Your task to perform on an android device: Open privacy settings Image 0: 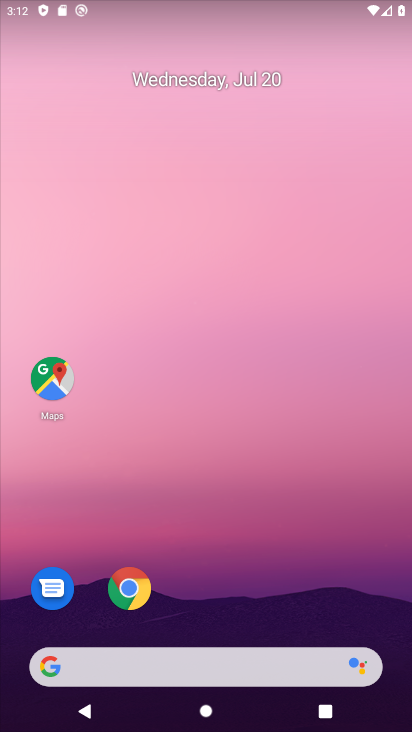
Step 0: drag from (288, 632) to (247, 140)
Your task to perform on an android device: Open privacy settings Image 1: 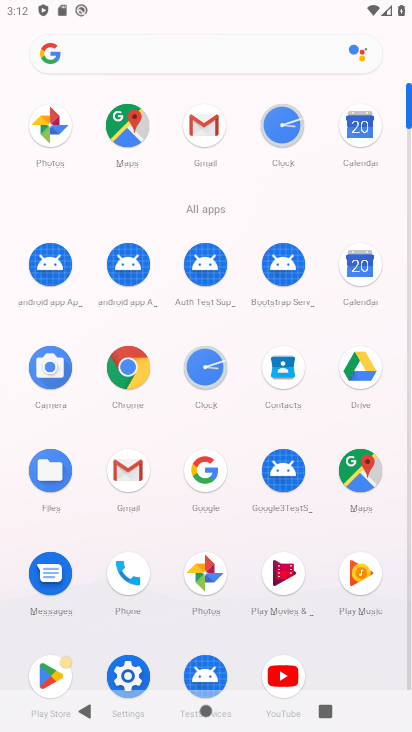
Step 1: click (125, 671)
Your task to perform on an android device: Open privacy settings Image 2: 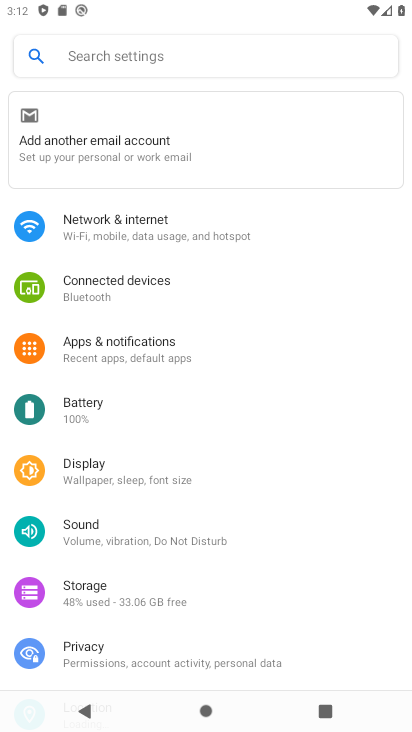
Step 2: click (114, 654)
Your task to perform on an android device: Open privacy settings Image 3: 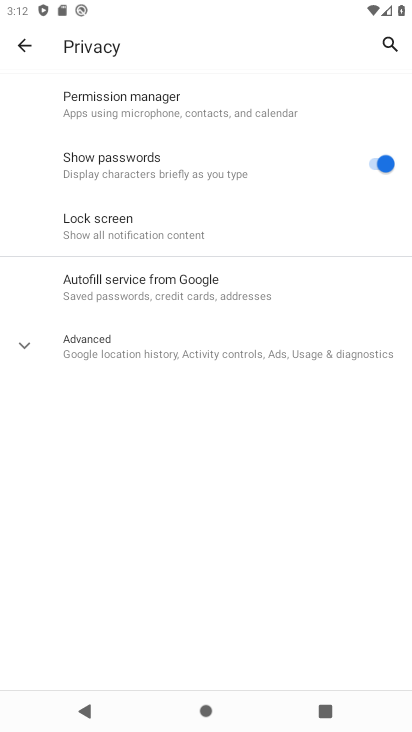
Step 3: task complete